Your task to perform on an android device: Search for Mexican restaurants on Maps Image 0: 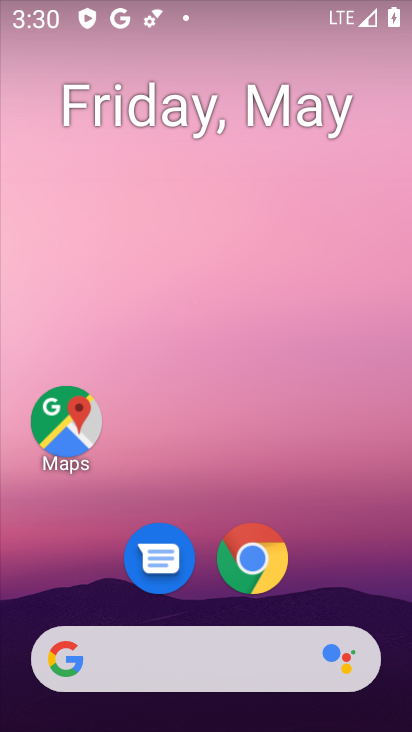
Step 0: press home button
Your task to perform on an android device: Search for Mexican restaurants on Maps Image 1: 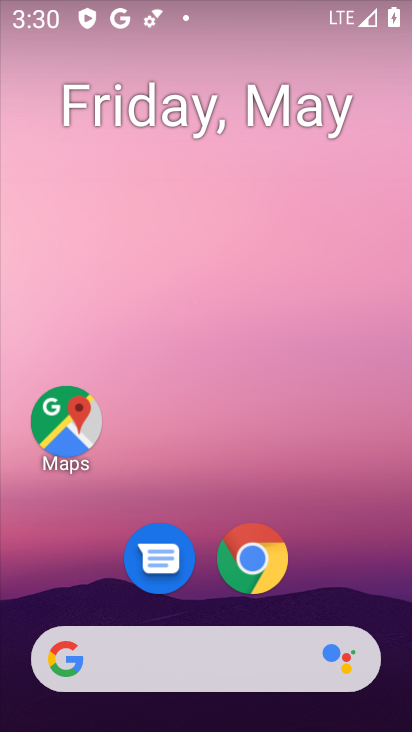
Step 1: click (74, 421)
Your task to perform on an android device: Search for Mexican restaurants on Maps Image 2: 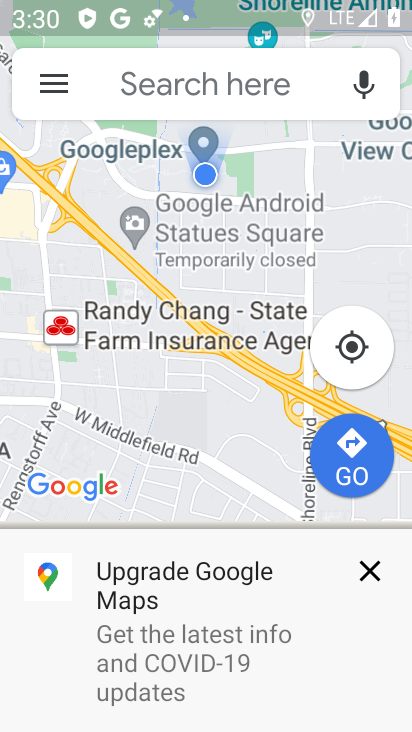
Step 2: click (214, 85)
Your task to perform on an android device: Search for Mexican restaurants on Maps Image 3: 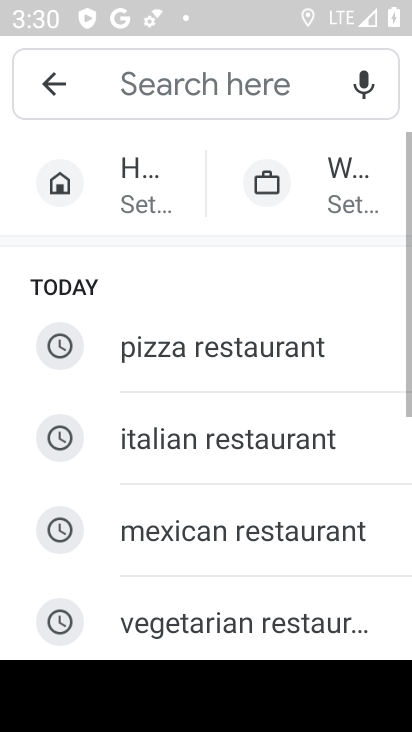
Step 3: click (198, 534)
Your task to perform on an android device: Search for Mexican restaurants on Maps Image 4: 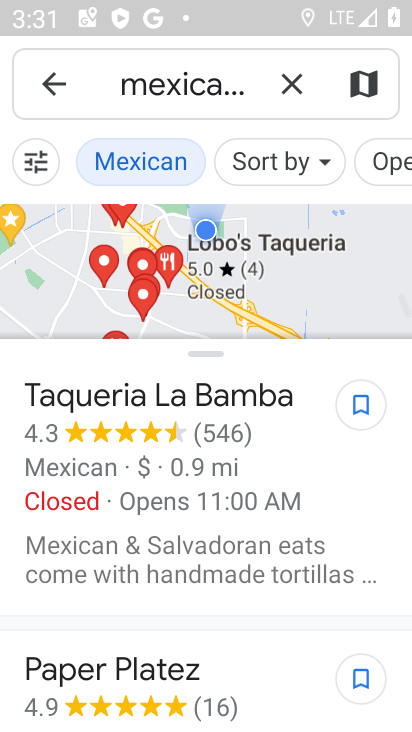
Step 4: task complete